Your task to perform on an android device: change alarm snooze length Image 0: 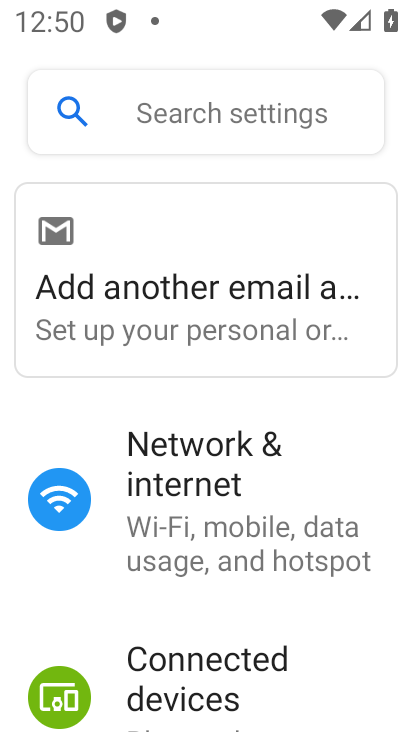
Step 0: press back button
Your task to perform on an android device: change alarm snooze length Image 1: 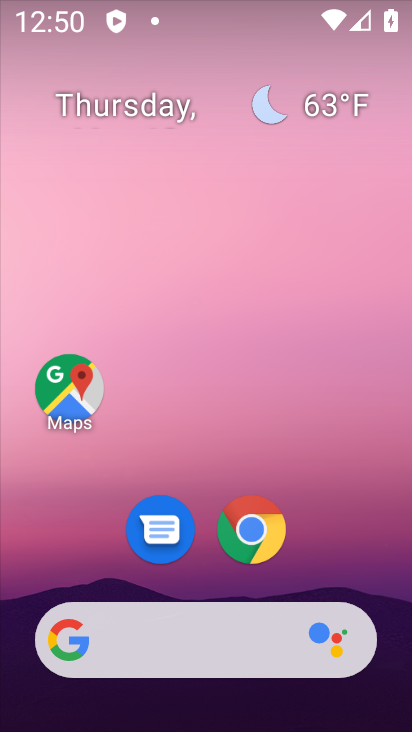
Step 1: drag from (337, 540) to (320, 143)
Your task to perform on an android device: change alarm snooze length Image 2: 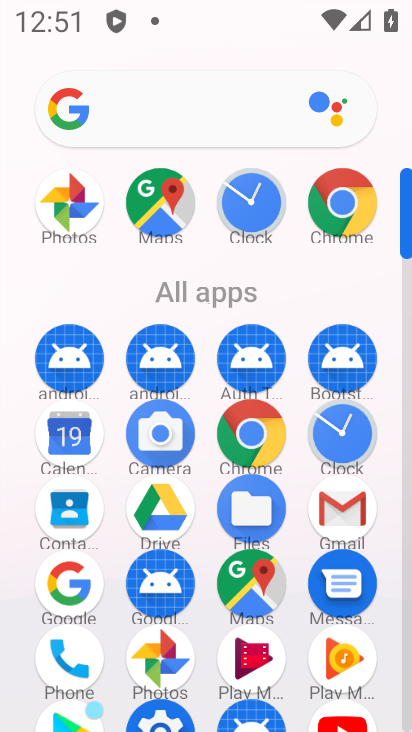
Step 2: drag from (297, 548) to (313, 332)
Your task to perform on an android device: change alarm snooze length Image 3: 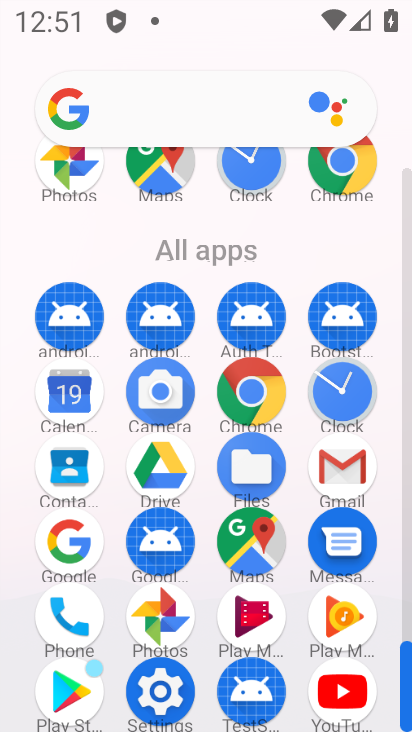
Step 3: click (343, 393)
Your task to perform on an android device: change alarm snooze length Image 4: 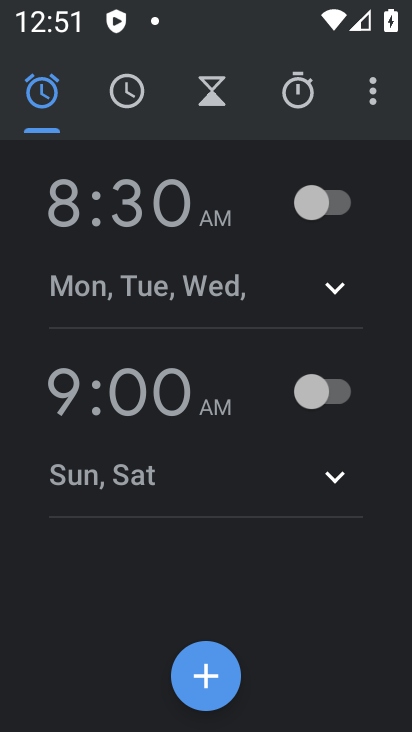
Step 4: click (374, 93)
Your task to perform on an android device: change alarm snooze length Image 5: 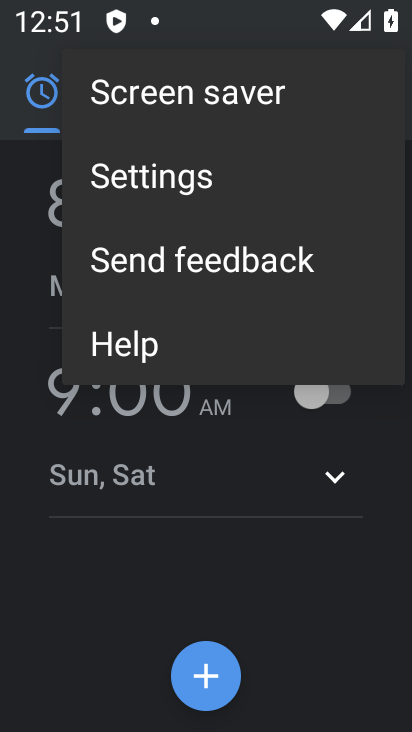
Step 5: click (174, 168)
Your task to perform on an android device: change alarm snooze length Image 6: 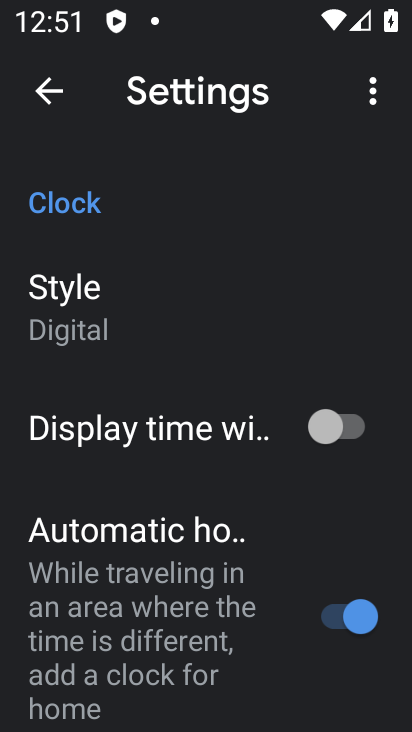
Step 6: drag from (166, 382) to (215, 301)
Your task to perform on an android device: change alarm snooze length Image 7: 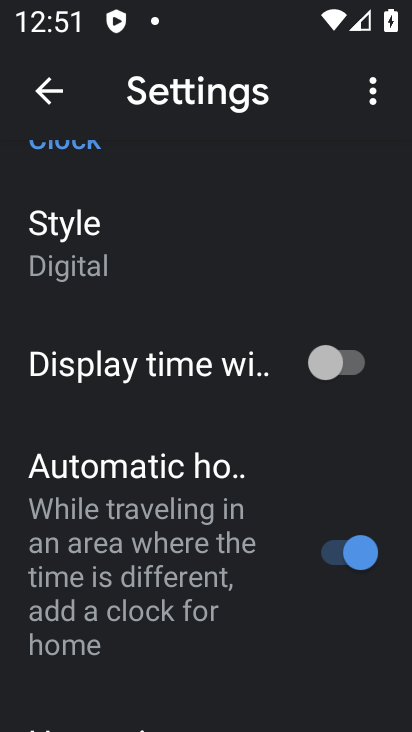
Step 7: drag from (143, 412) to (211, 297)
Your task to perform on an android device: change alarm snooze length Image 8: 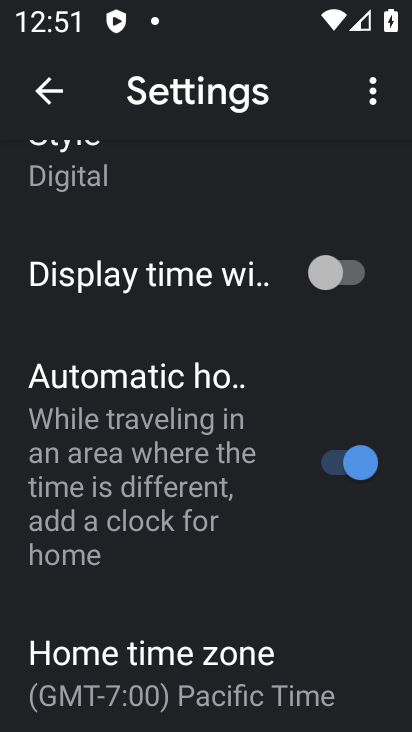
Step 8: drag from (135, 567) to (230, 419)
Your task to perform on an android device: change alarm snooze length Image 9: 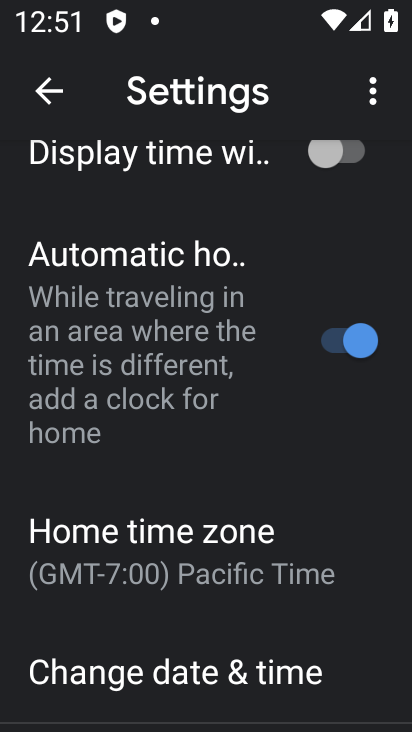
Step 9: drag from (143, 622) to (260, 447)
Your task to perform on an android device: change alarm snooze length Image 10: 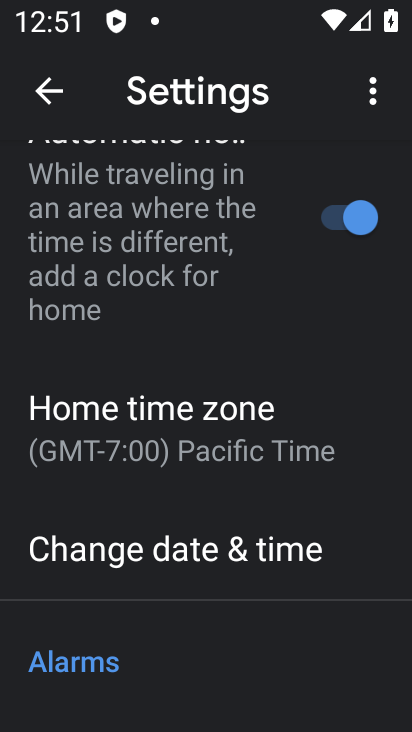
Step 10: drag from (164, 629) to (235, 468)
Your task to perform on an android device: change alarm snooze length Image 11: 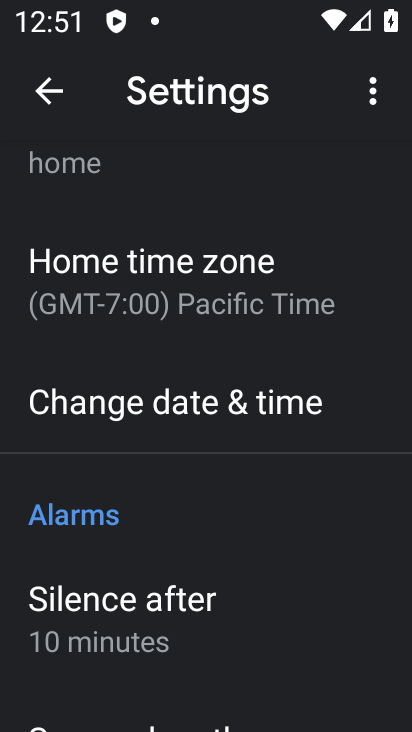
Step 11: drag from (160, 546) to (292, 380)
Your task to perform on an android device: change alarm snooze length Image 12: 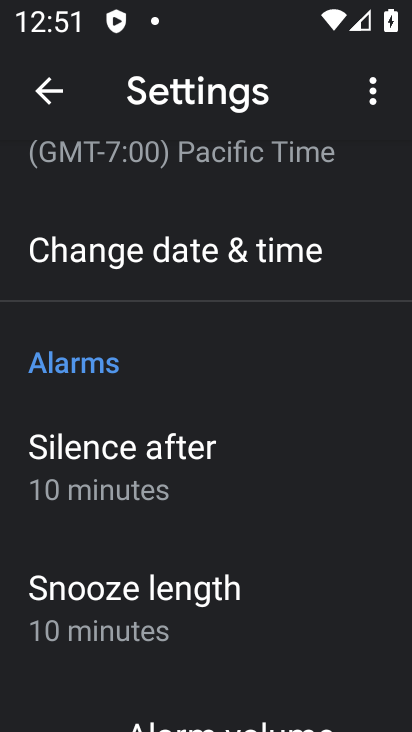
Step 12: drag from (200, 495) to (300, 368)
Your task to perform on an android device: change alarm snooze length Image 13: 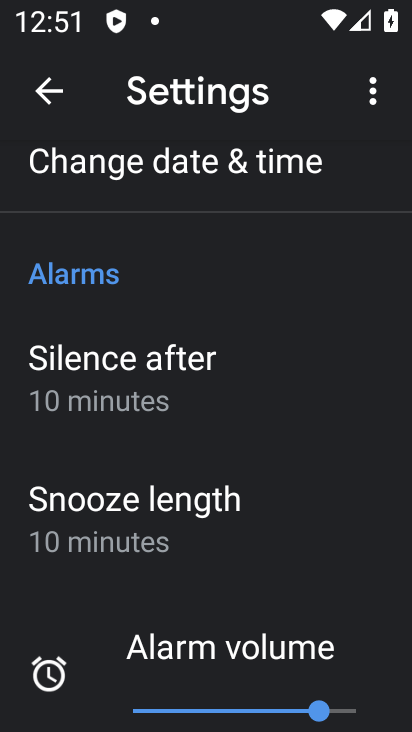
Step 13: click (184, 493)
Your task to perform on an android device: change alarm snooze length Image 14: 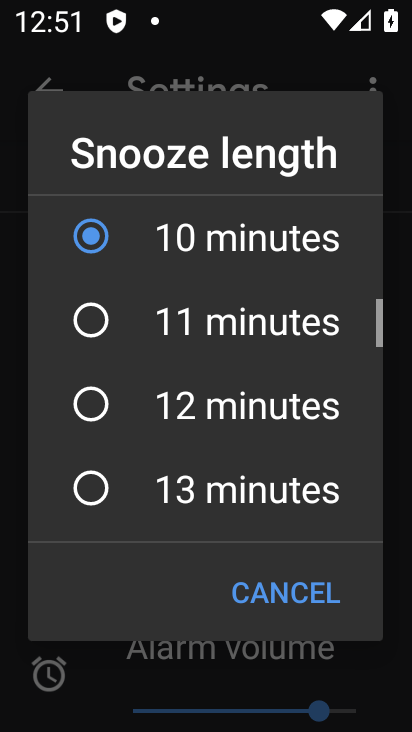
Step 14: drag from (173, 463) to (222, 327)
Your task to perform on an android device: change alarm snooze length Image 15: 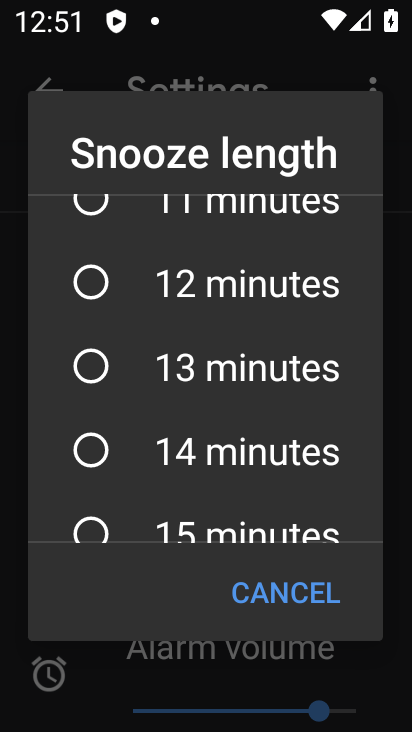
Step 15: click (97, 368)
Your task to perform on an android device: change alarm snooze length Image 16: 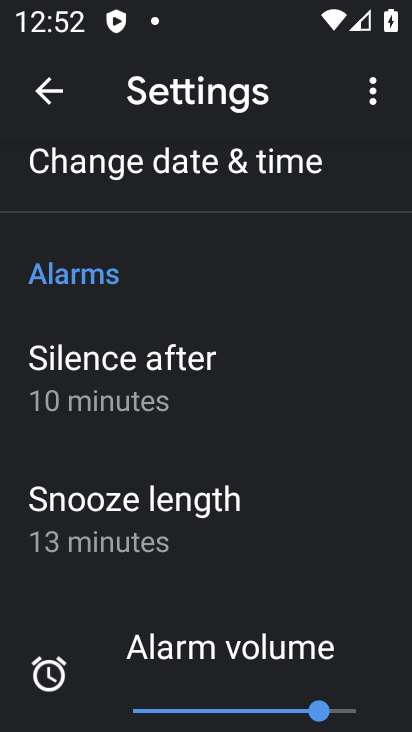
Step 16: task complete